Your task to perform on an android device: delete the emails in spam in the gmail app Image 0: 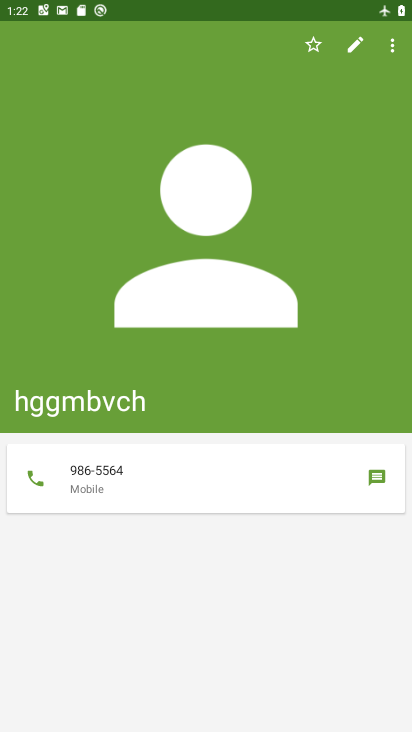
Step 0: press home button
Your task to perform on an android device: delete the emails in spam in the gmail app Image 1: 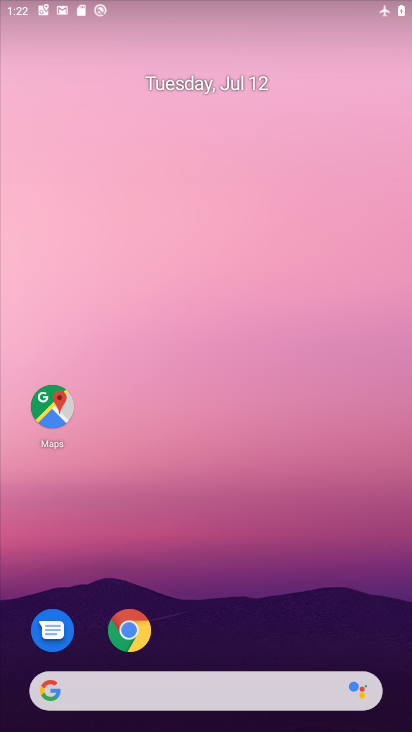
Step 1: drag from (260, 410) to (345, 189)
Your task to perform on an android device: delete the emails in spam in the gmail app Image 2: 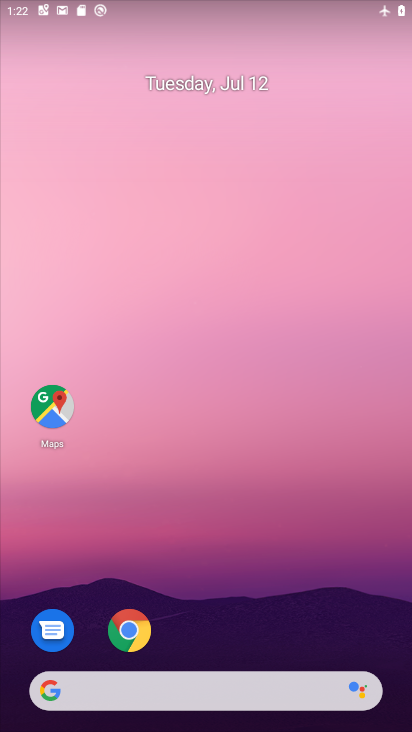
Step 2: drag from (235, 616) to (331, 204)
Your task to perform on an android device: delete the emails in spam in the gmail app Image 3: 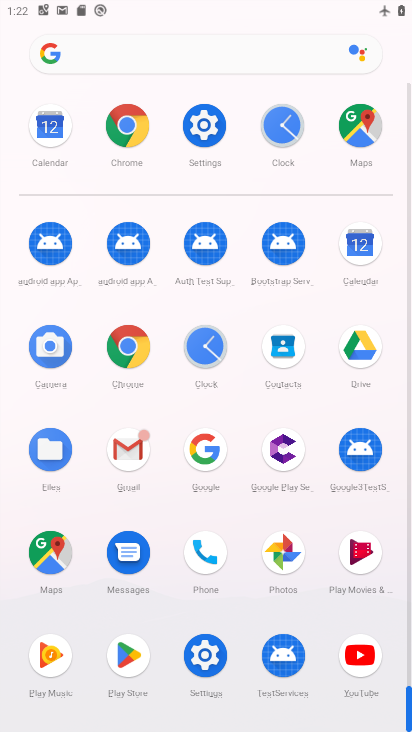
Step 3: click (144, 460)
Your task to perform on an android device: delete the emails in spam in the gmail app Image 4: 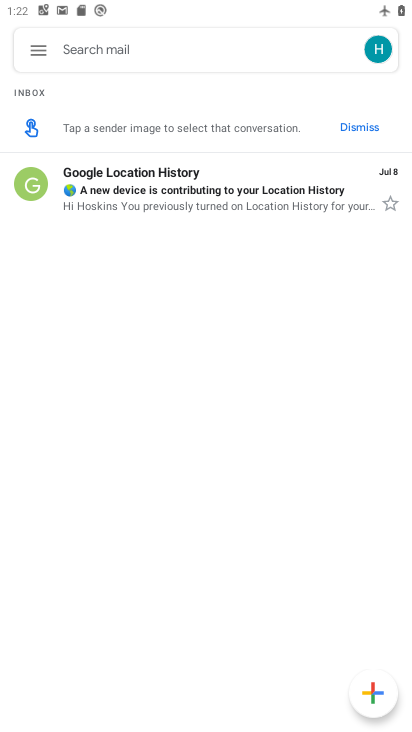
Step 4: click (41, 50)
Your task to perform on an android device: delete the emails in spam in the gmail app Image 5: 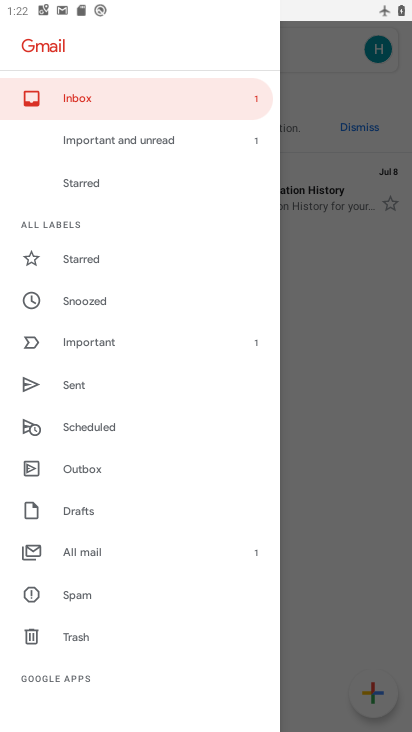
Step 5: click (84, 596)
Your task to perform on an android device: delete the emails in spam in the gmail app Image 6: 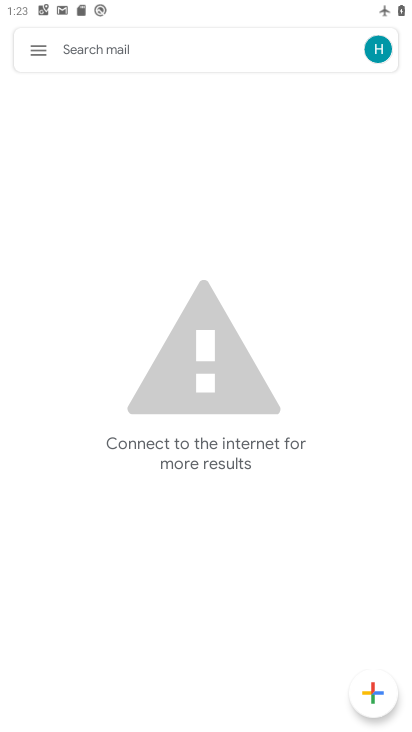
Step 6: task complete